Your task to perform on an android device: install app "Venmo" Image 0: 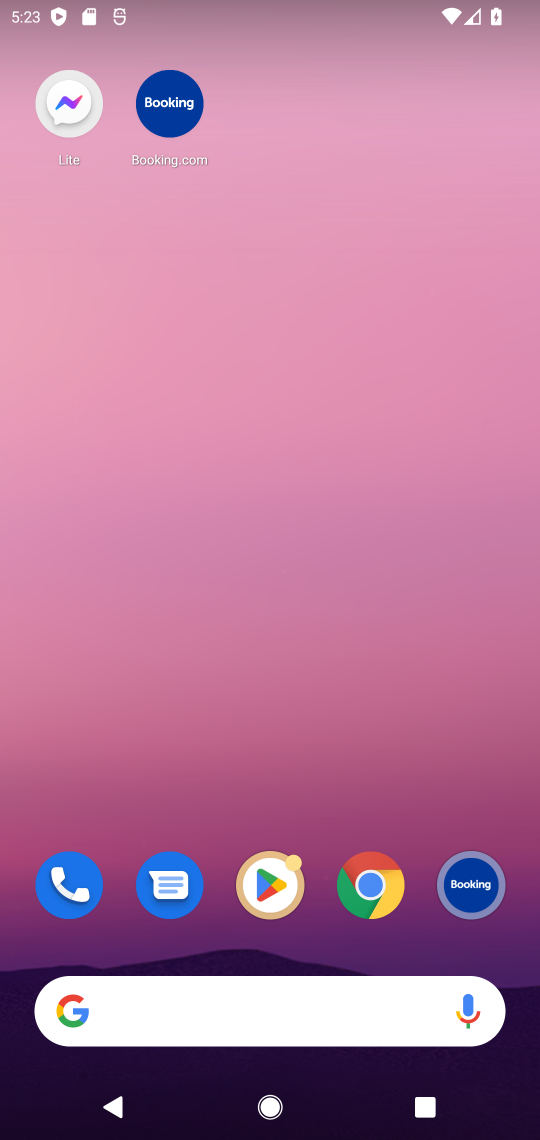
Step 0: click (278, 870)
Your task to perform on an android device: install app "Venmo" Image 1: 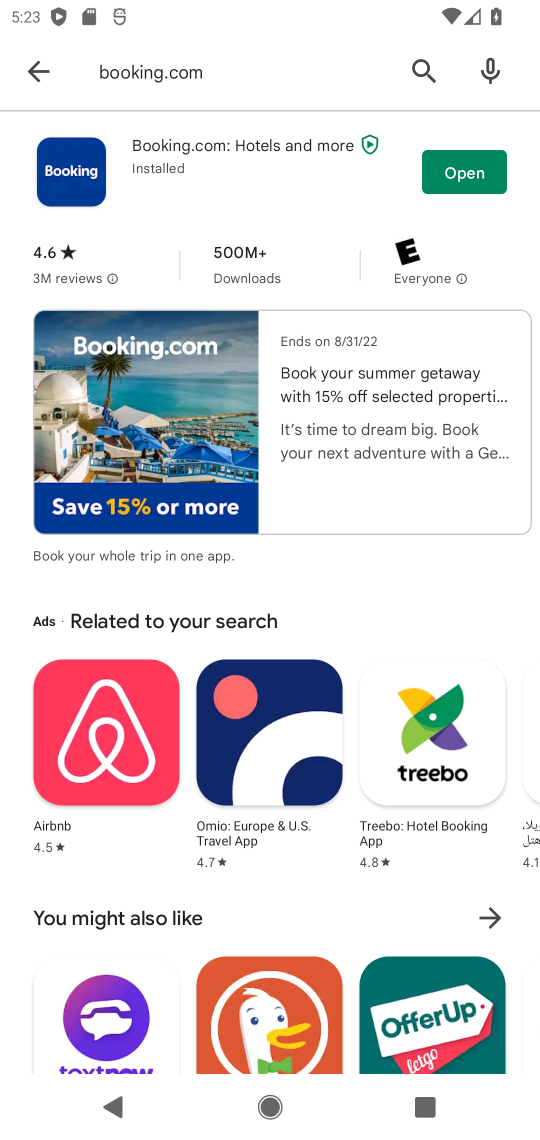
Step 1: click (426, 76)
Your task to perform on an android device: install app "Venmo" Image 2: 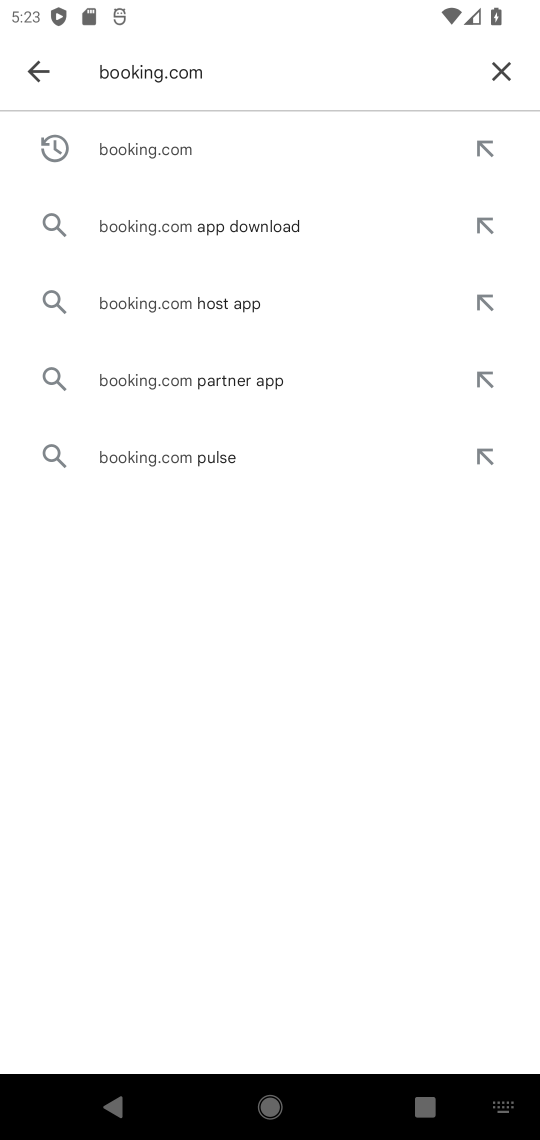
Step 2: click (512, 58)
Your task to perform on an android device: install app "Venmo" Image 3: 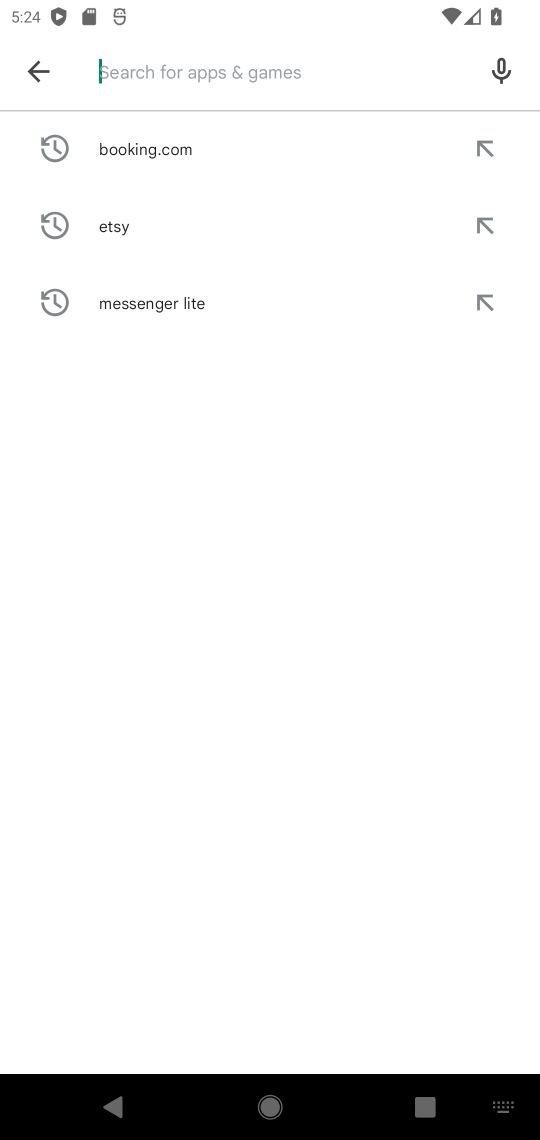
Step 3: type "venmo"
Your task to perform on an android device: install app "Venmo" Image 4: 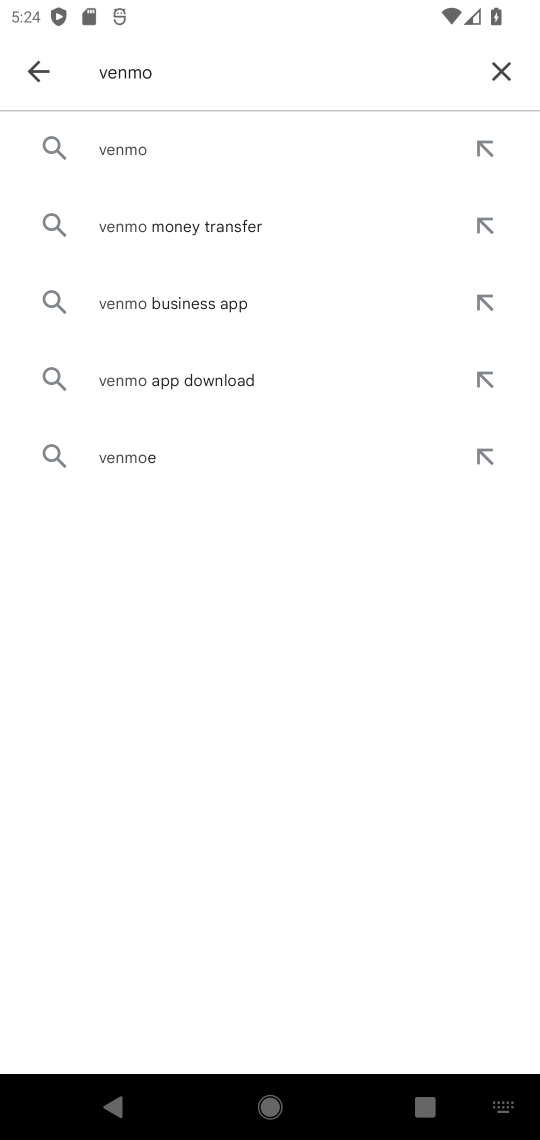
Step 4: click (162, 159)
Your task to perform on an android device: install app "Venmo" Image 5: 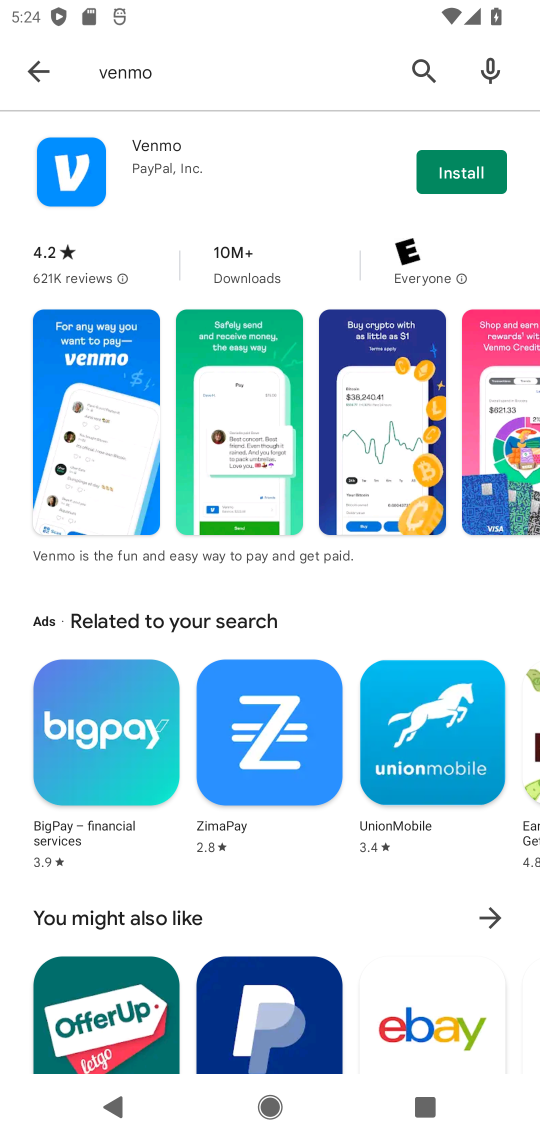
Step 5: click (435, 172)
Your task to perform on an android device: install app "Venmo" Image 6: 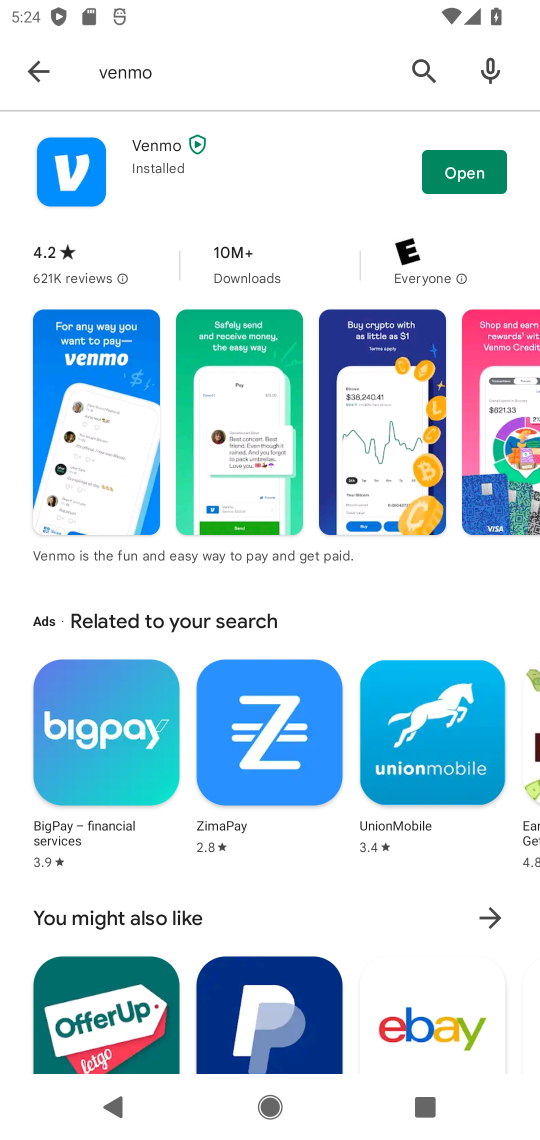
Step 6: click (458, 170)
Your task to perform on an android device: install app "Venmo" Image 7: 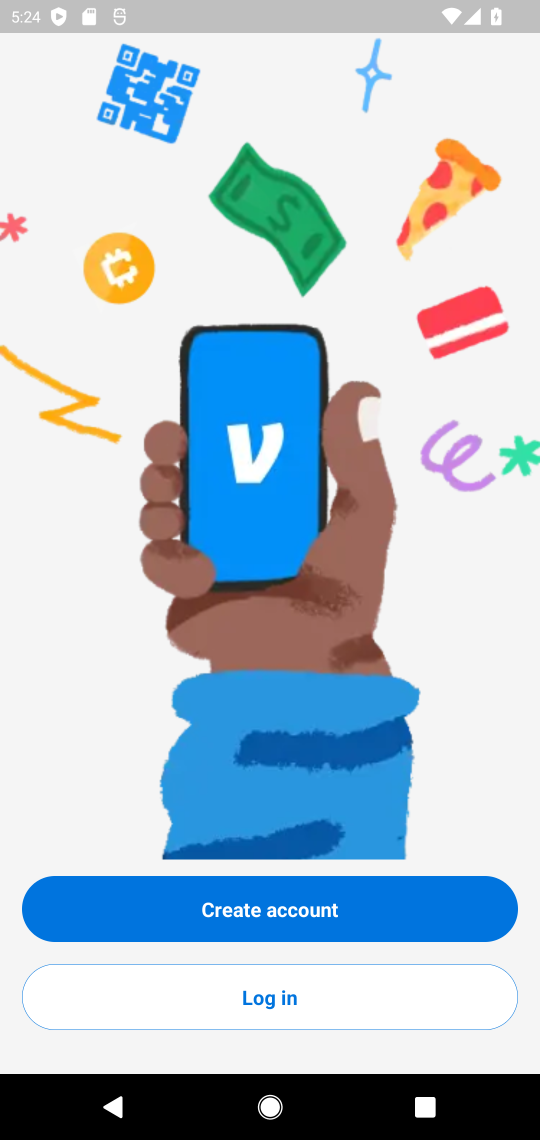
Step 7: task complete